Your task to perform on an android device: turn on priority inbox in the gmail app Image 0: 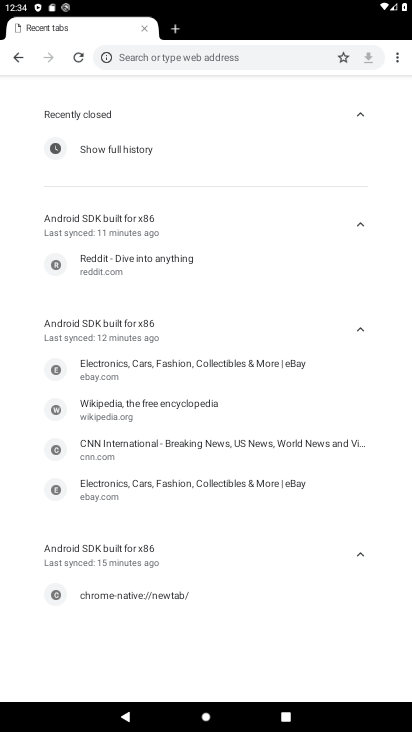
Step 0: press home button
Your task to perform on an android device: turn on priority inbox in the gmail app Image 1: 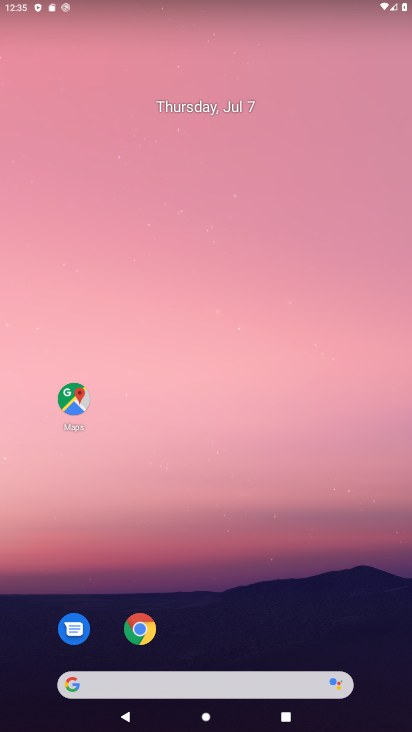
Step 1: drag from (220, 619) to (171, 151)
Your task to perform on an android device: turn on priority inbox in the gmail app Image 2: 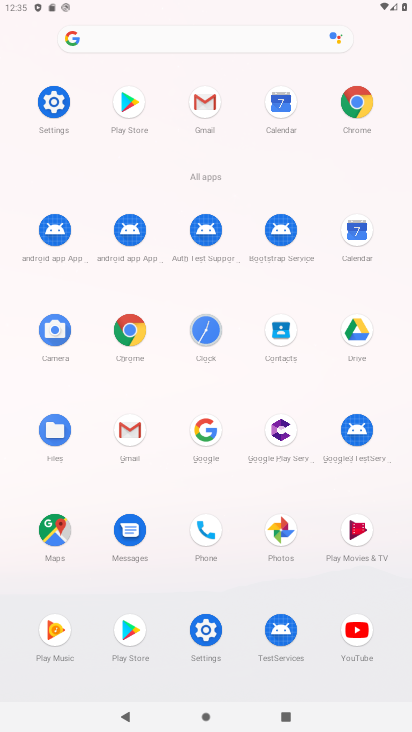
Step 2: click (204, 101)
Your task to perform on an android device: turn on priority inbox in the gmail app Image 3: 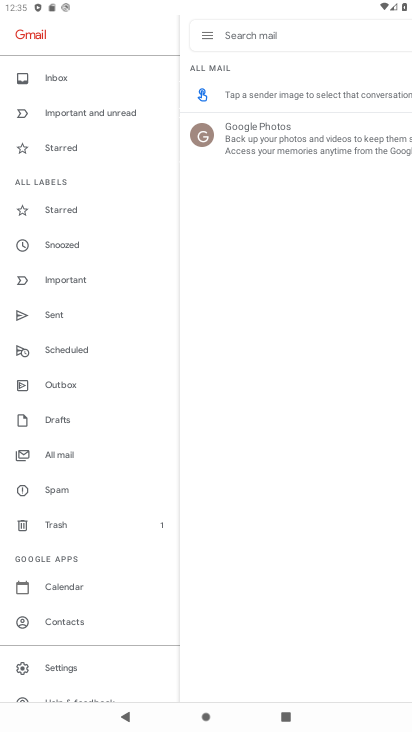
Step 3: click (209, 36)
Your task to perform on an android device: turn on priority inbox in the gmail app Image 4: 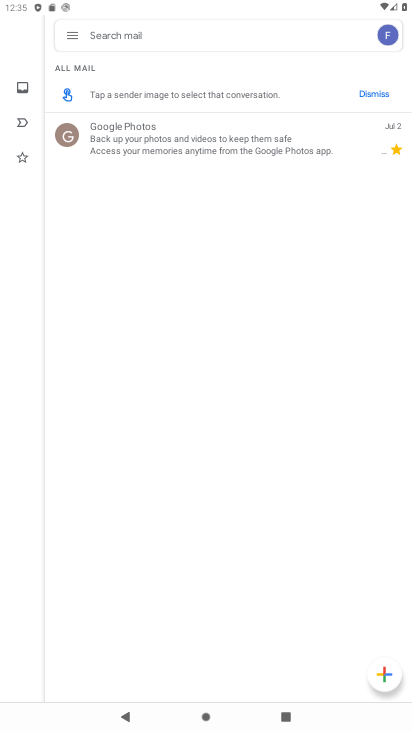
Step 4: click (74, 34)
Your task to perform on an android device: turn on priority inbox in the gmail app Image 5: 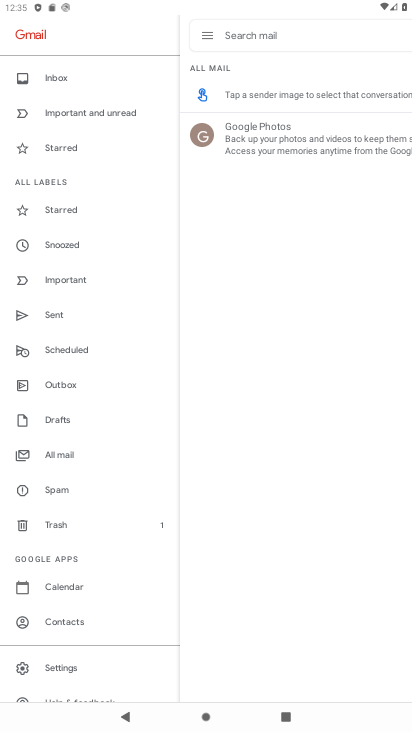
Step 5: click (72, 666)
Your task to perform on an android device: turn on priority inbox in the gmail app Image 6: 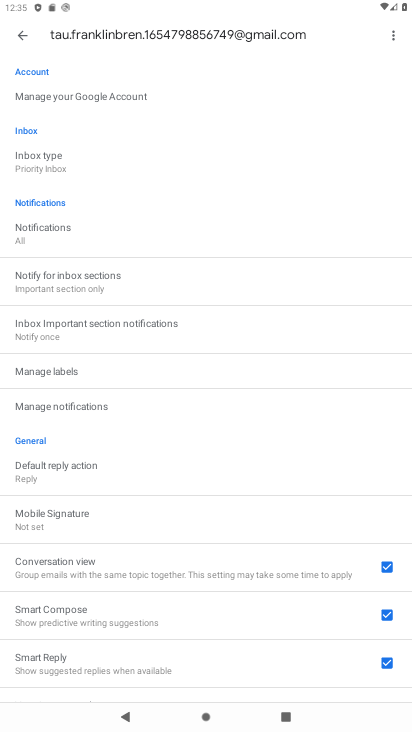
Step 6: click (50, 167)
Your task to perform on an android device: turn on priority inbox in the gmail app Image 7: 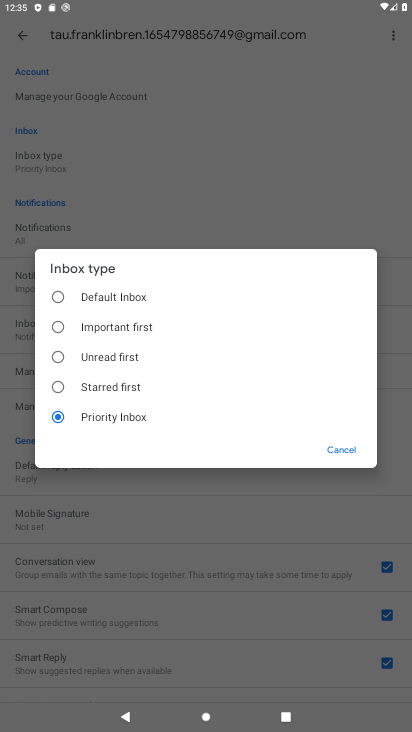
Step 7: click (52, 415)
Your task to perform on an android device: turn on priority inbox in the gmail app Image 8: 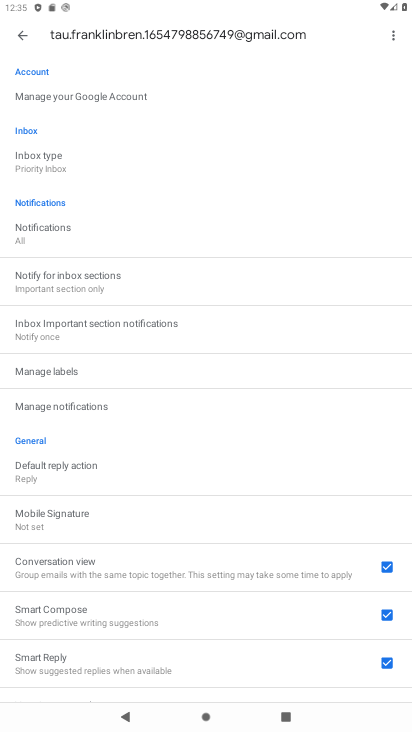
Step 8: task complete